Your task to perform on an android device: When is my next appointment? Image 0: 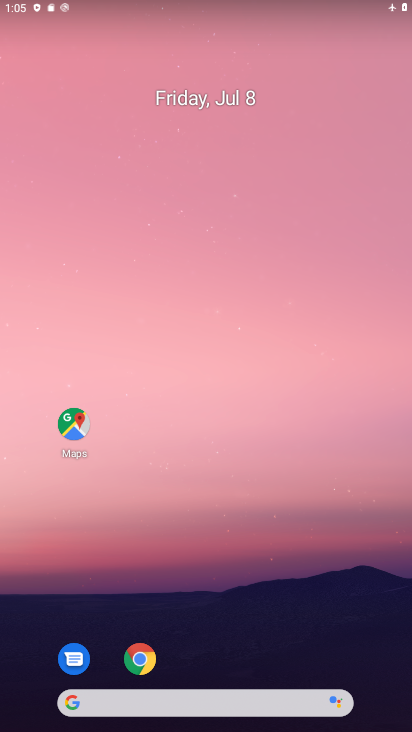
Step 0: drag from (244, 601) to (282, 37)
Your task to perform on an android device: When is my next appointment? Image 1: 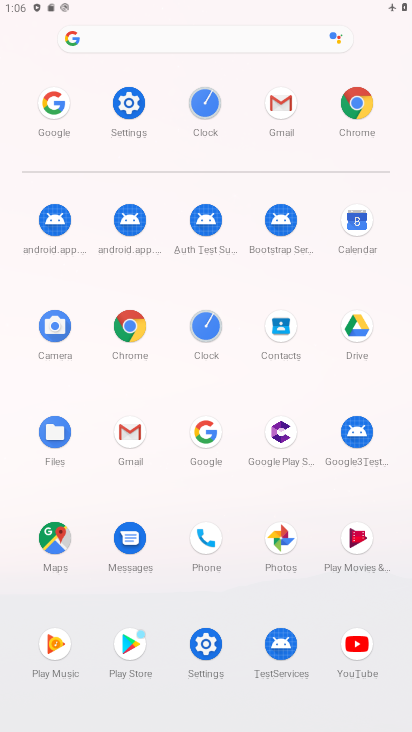
Step 1: click (361, 239)
Your task to perform on an android device: When is my next appointment? Image 2: 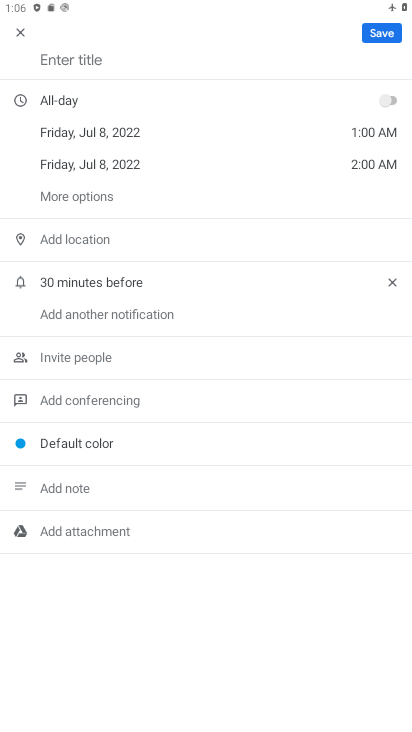
Step 2: task complete